Your task to perform on an android device: Open the phone app and click the voicemail tab. Image 0: 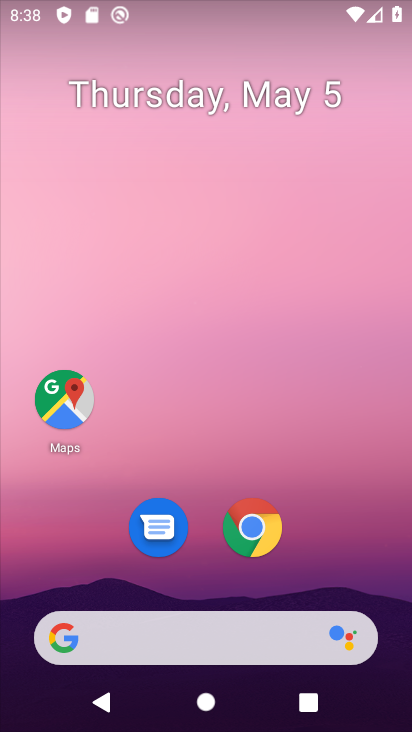
Step 0: drag from (317, 399) to (127, 5)
Your task to perform on an android device: Open the phone app and click the voicemail tab. Image 1: 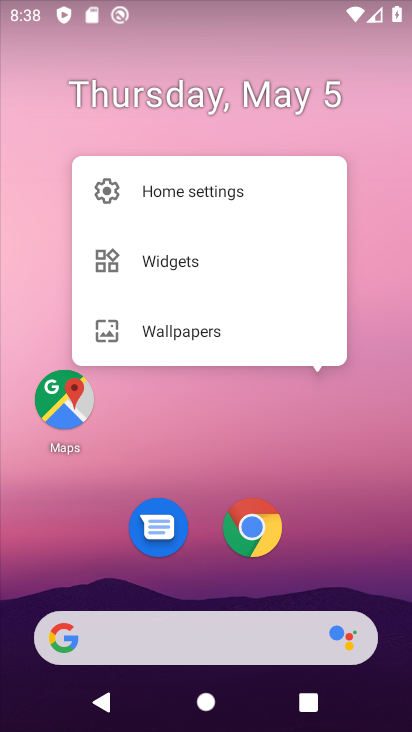
Step 1: drag from (282, 285) to (231, 10)
Your task to perform on an android device: Open the phone app and click the voicemail tab. Image 2: 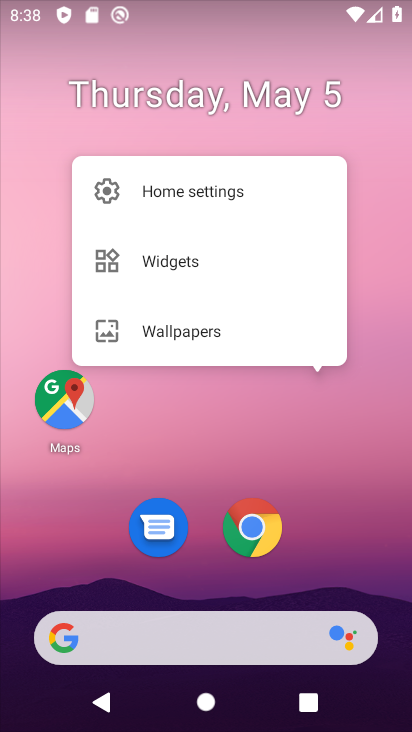
Step 2: drag from (302, 457) to (257, 40)
Your task to perform on an android device: Open the phone app and click the voicemail tab. Image 3: 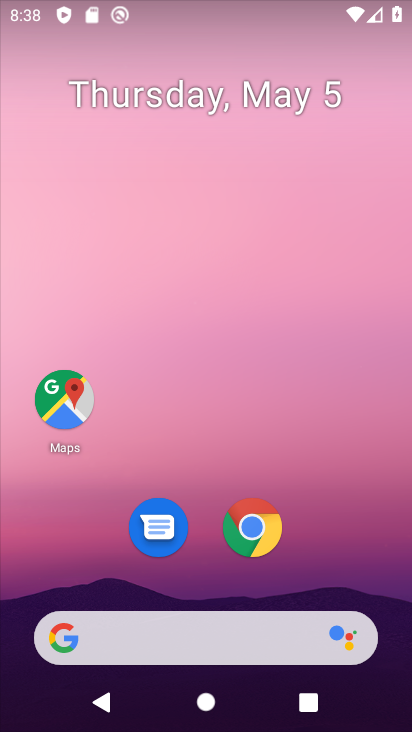
Step 3: click (225, 113)
Your task to perform on an android device: Open the phone app and click the voicemail tab. Image 4: 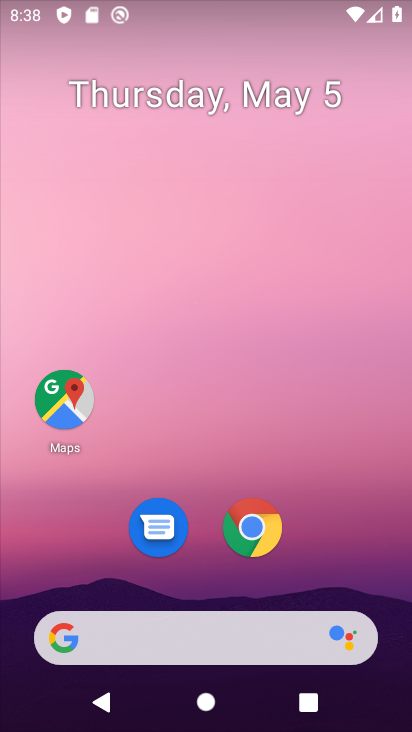
Step 4: drag from (381, 527) to (291, 182)
Your task to perform on an android device: Open the phone app and click the voicemail tab. Image 5: 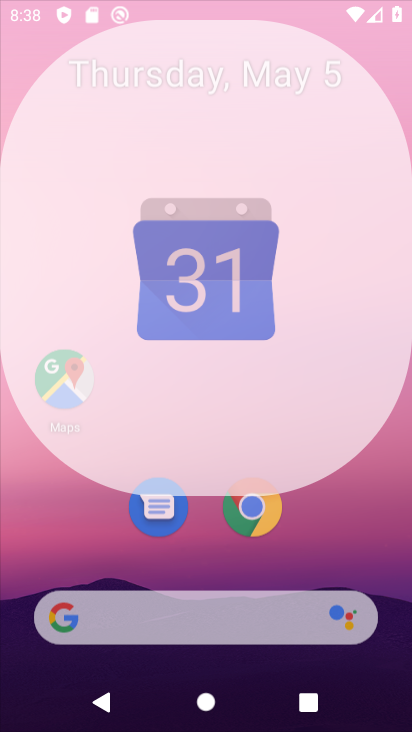
Step 5: drag from (320, 522) to (248, 128)
Your task to perform on an android device: Open the phone app and click the voicemail tab. Image 6: 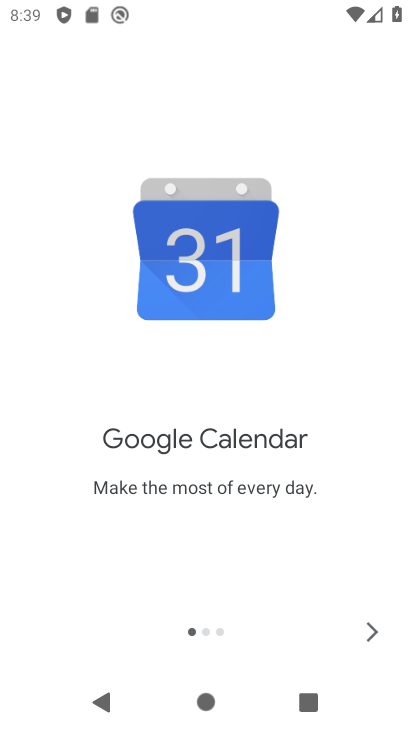
Step 6: click (358, 631)
Your task to perform on an android device: Open the phone app and click the voicemail tab. Image 7: 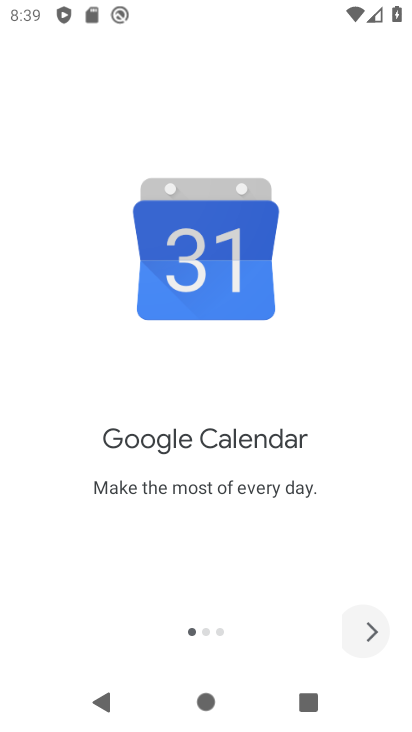
Step 7: click (367, 633)
Your task to perform on an android device: Open the phone app and click the voicemail tab. Image 8: 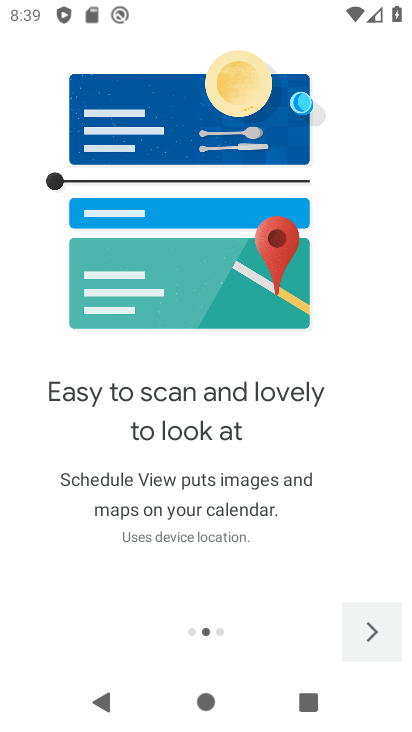
Step 8: click (371, 633)
Your task to perform on an android device: Open the phone app and click the voicemail tab. Image 9: 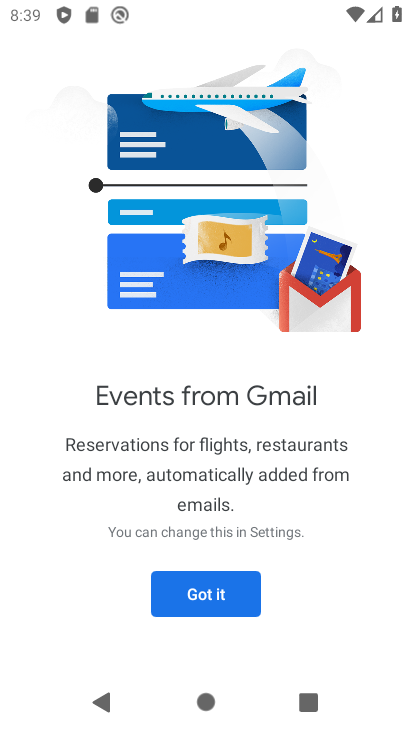
Step 9: click (202, 600)
Your task to perform on an android device: Open the phone app and click the voicemail tab. Image 10: 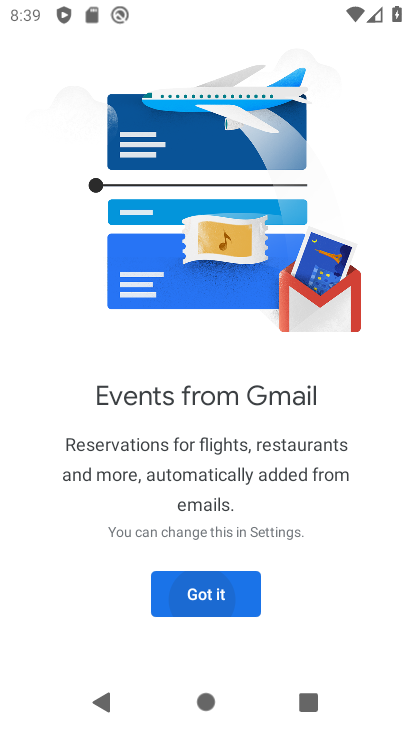
Step 10: click (197, 588)
Your task to perform on an android device: Open the phone app and click the voicemail tab. Image 11: 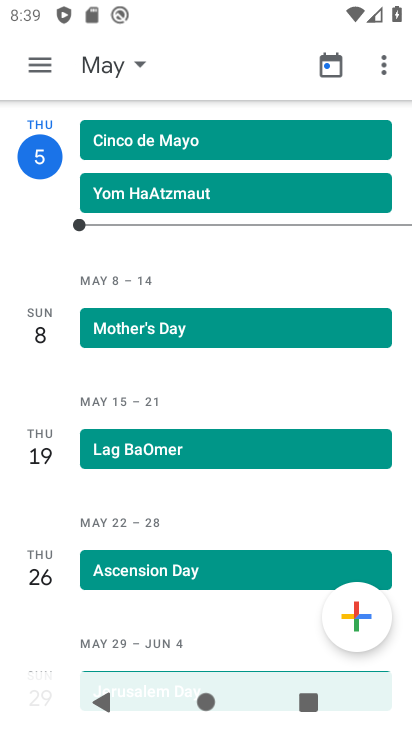
Step 11: click (201, 586)
Your task to perform on an android device: Open the phone app and click the voicemail tab. Image 12: 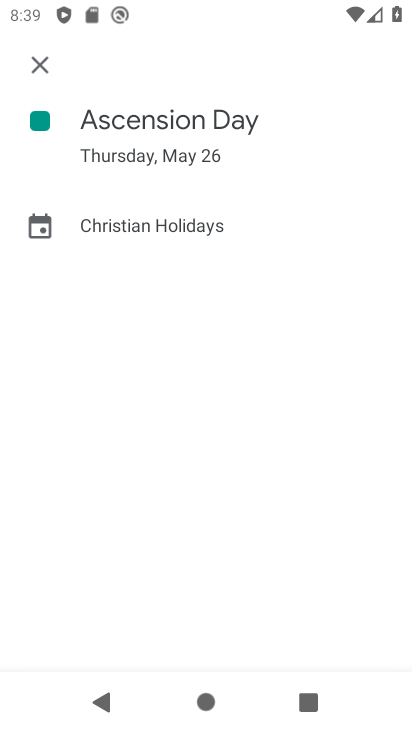
Step 12: press home button
Your task to perform on an android device: Open the phone app and click the voicemail tab. Image 13: 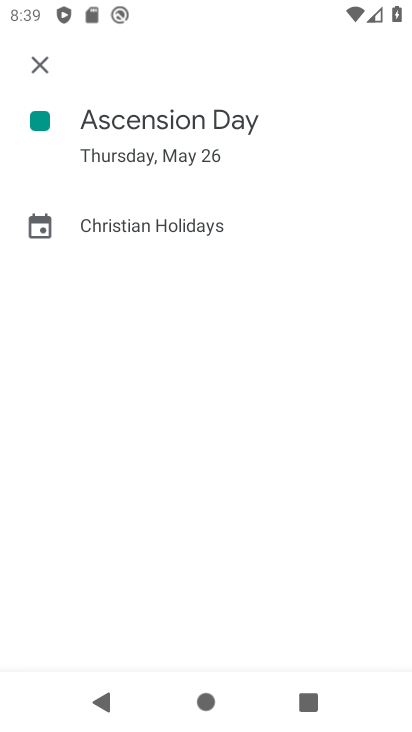
Step 13: press home button
Your task to perform on an android device: Open the phone app and click the voicemail tab. Image 14: 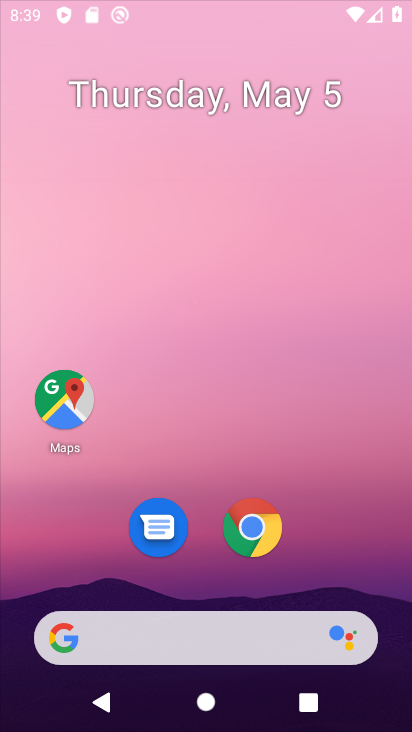
Step 14: press home button
Your task to perform on an android device: Open the phone app and click the voicemail tab. Image 15: 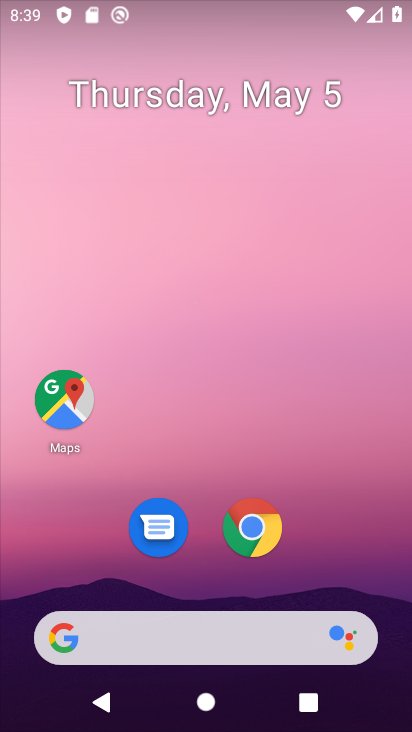
Step 15: drag from (304, 563) to (121, 3)
Your task to perform on an android device: Open the phone app and click the voicemail tab. Image 16: 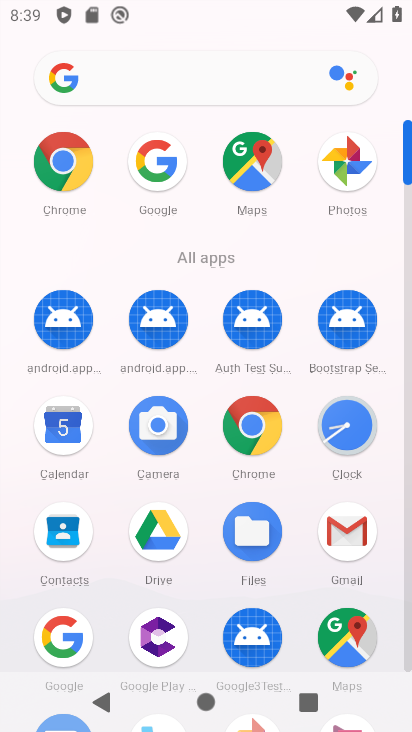
Step 16: drag from (233, 325) to (227, 282)
Your task to perform on an android device: Open the phone app and click the voicemail tab. Image 17: 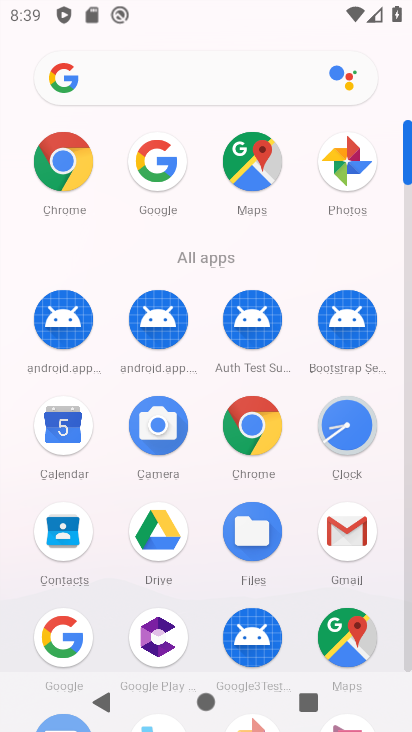
Step 17: drag from (278, 563) to (274, 135)
Your task to perform on an android device: Open the phone app and click the voicemail tab. Image 18: 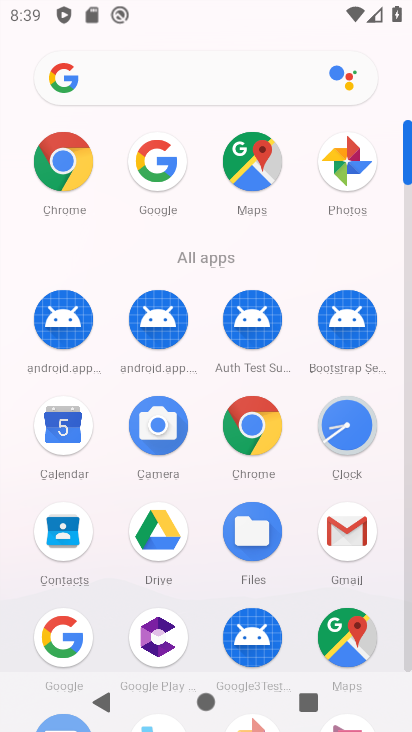
Step 18: click (404, 581)
Your task to perform on an android device: Open the phone app and click the voicemail tab. Image 19: 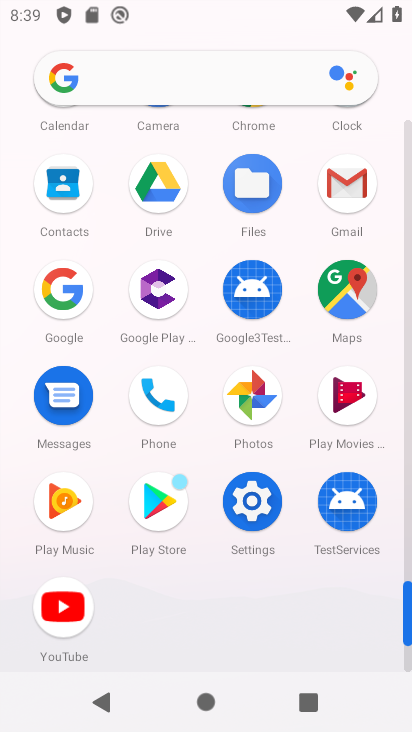
Step 19: click (397, 507)
Your task to perform on an android device: Open the phone app and click the voicemail tab. Image 20: 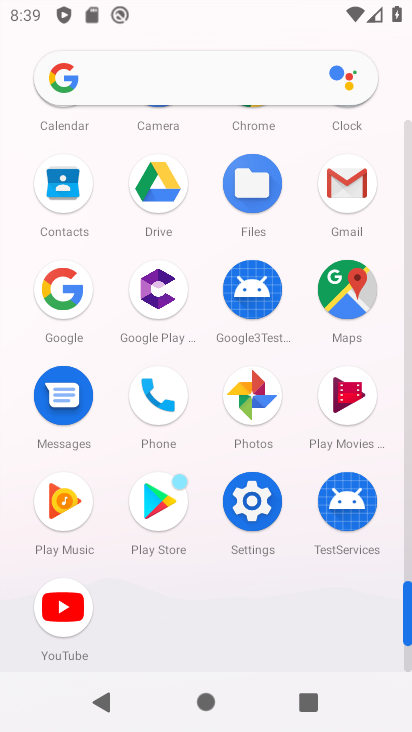
Step 20: click (154, 407)
Your task to perform on an android device: Open the phone app and click the voicemail tab. Image 21: 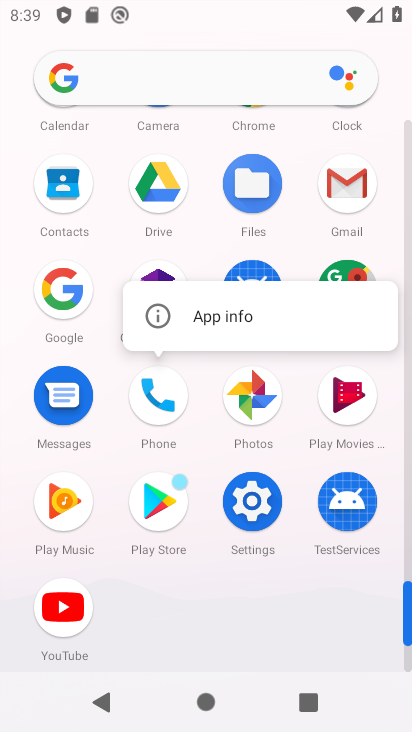
Step 21: click (156, 406)
Your task to perform on an android device: Open the phone app and click the voicemail tab. Image 22: 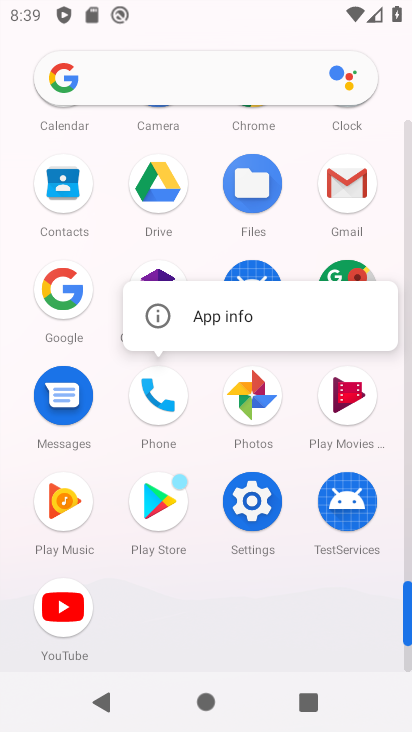
Step 22: click (156, 406)
Your task to perform on an android device: Open the phone app and click the voicemail tab. Image 23: 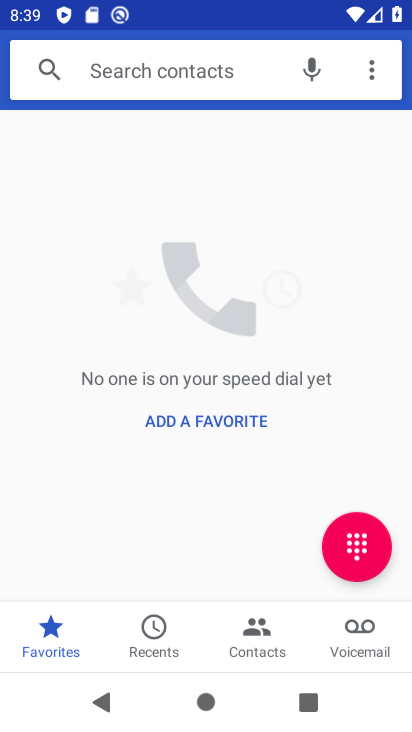
Step 23: click (156, 406)
Your task to perform on an android device: Open the phone app and click the voicemail tab. Image 24: 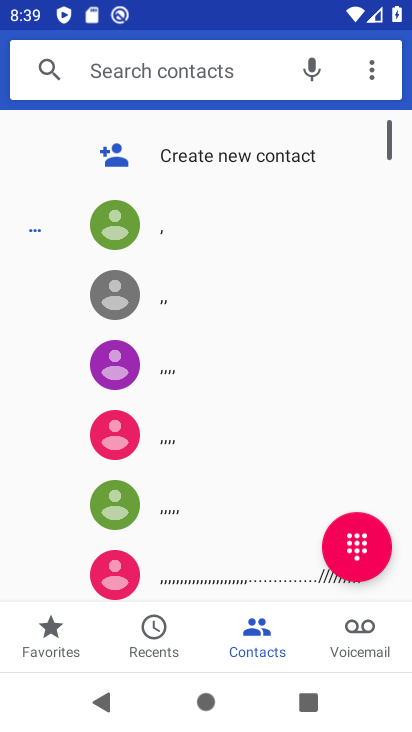
Step 24: click (350, 618)
Your task to perform on an android device: Open the phone app and click the voicemail tab. Image 25: 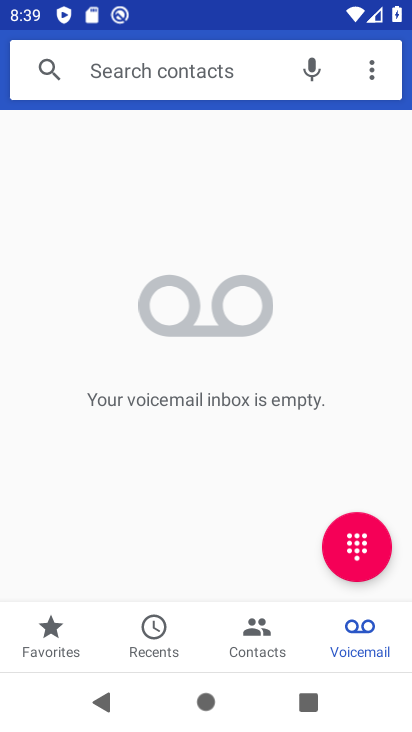
Step 25: task complete